Your task to perform on an android device: manage bookmarks in the chrome app Image 0: 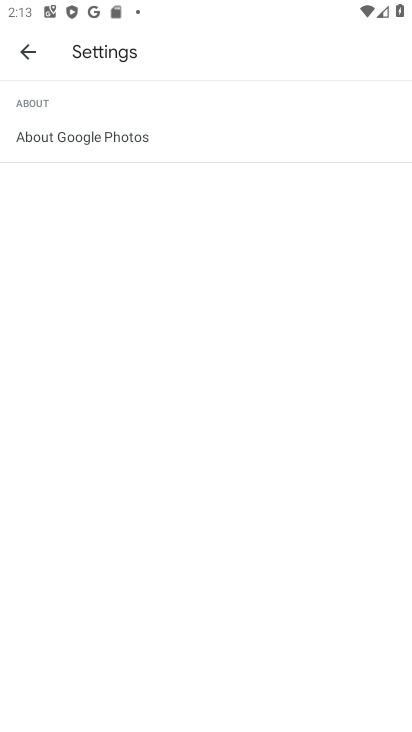
Step 0: press home button
Your task to perform on an android device: manage bookmarks in the chrome app Image 1: 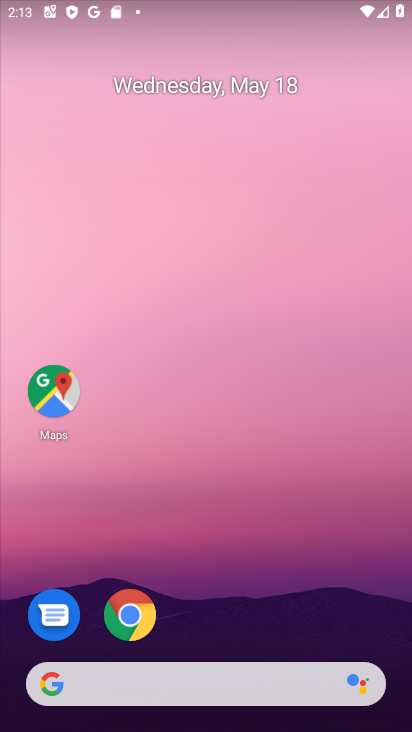
Step 1: drag from (232, 624) to (218, 257)
Your task to perform on an android device: manage bookmarks in the chrome app Image 2: 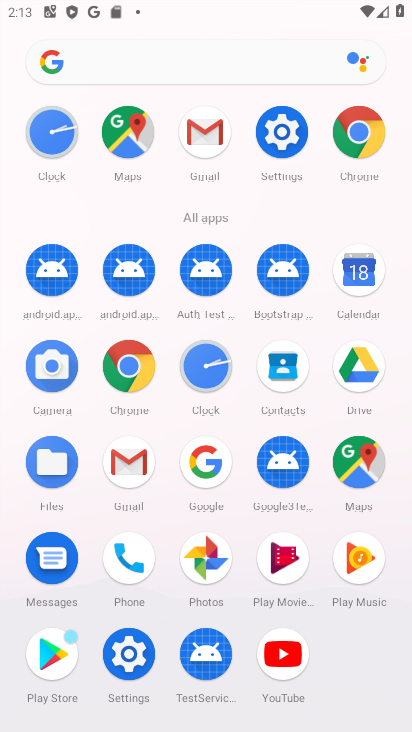
Step 2: click (362, 137)
Your task to perform on an android device: manage bookmarks in the chrome app Image 3: 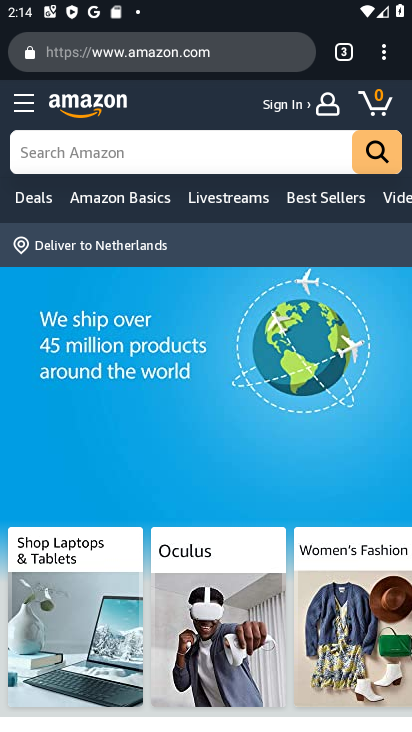
Step 3: click (394, 52)
Your task to perform on an android device: manage bookmarks in the chrome app Image 4: 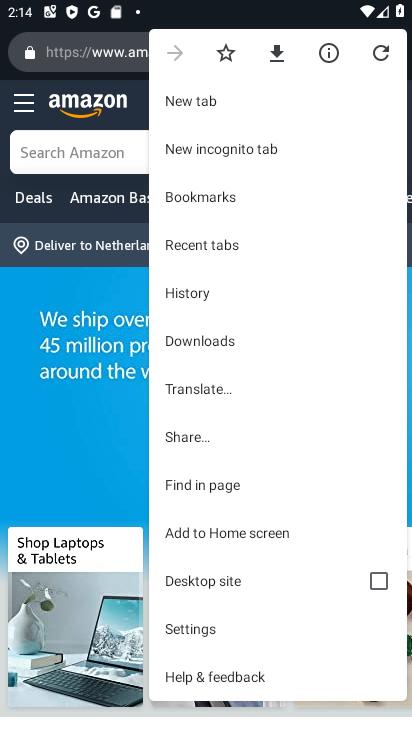
Step 4: click (262, 208)
Your task to perform on an android device: manage bookmarks in the chrome app Image 5: 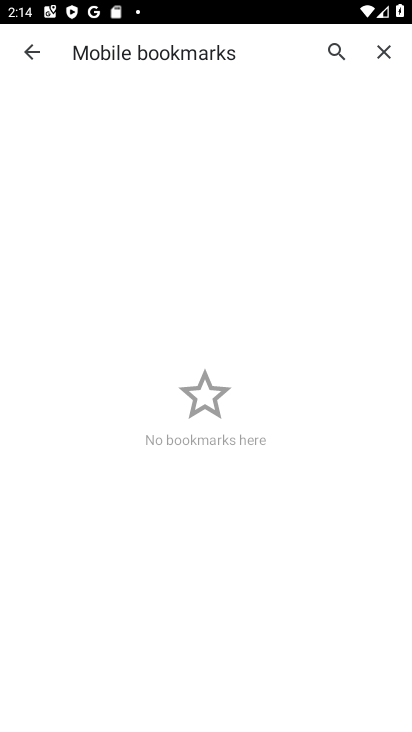
Step 5: task complete